Your task to perform on an android device: Add usb-a to usb-b to the cart on bestbuy.com Image 0: 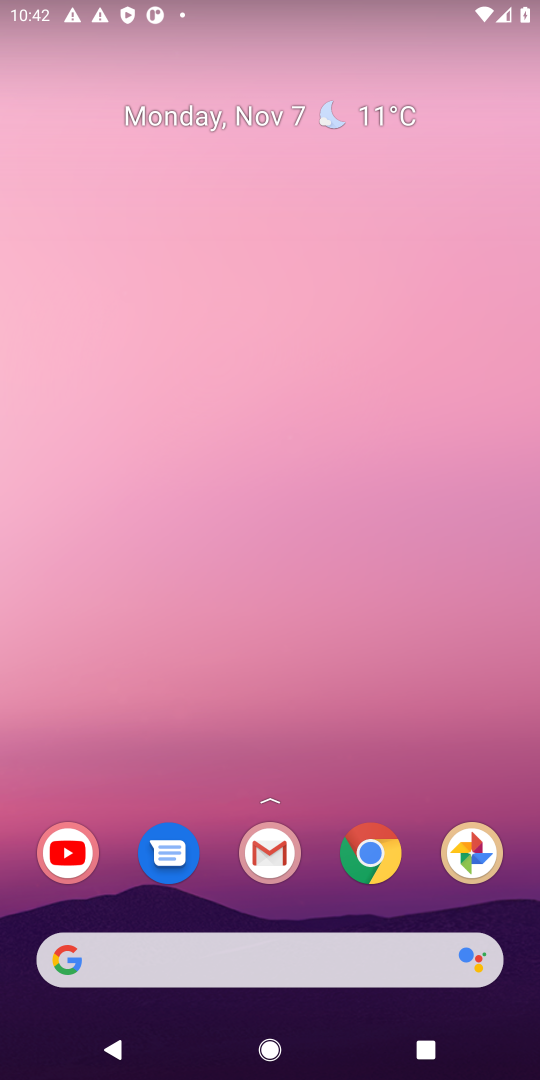
Step 0: click (388, 950)
Your task to perform on an android device: Add usb-a to usb-b to the cart on bestbuy.com Image 1: 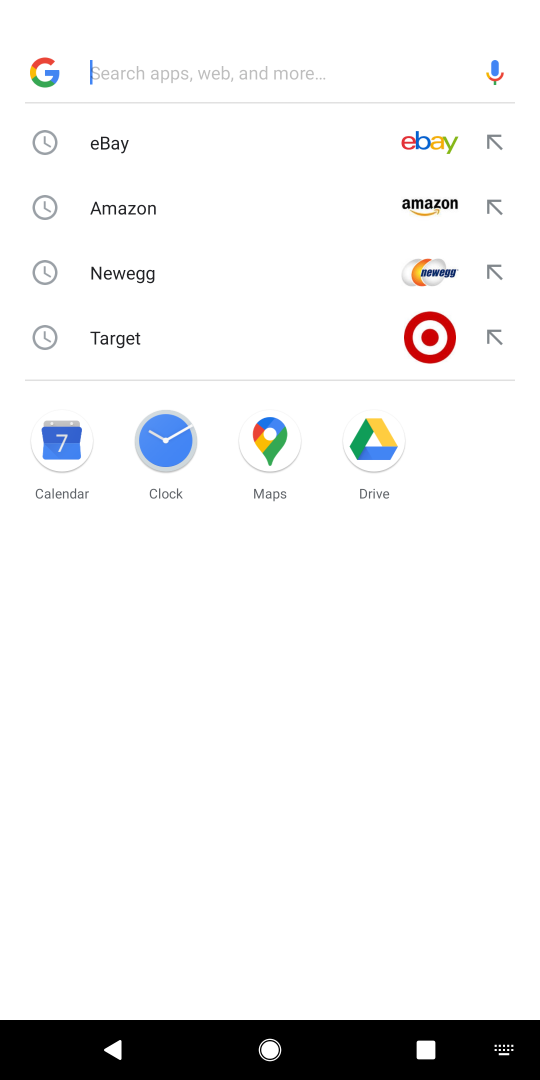
Step 1: type "bestbuy"
Your task to perform on an android device: Add usb-a to usb-b to the cart on bestbuy.com Image 2: 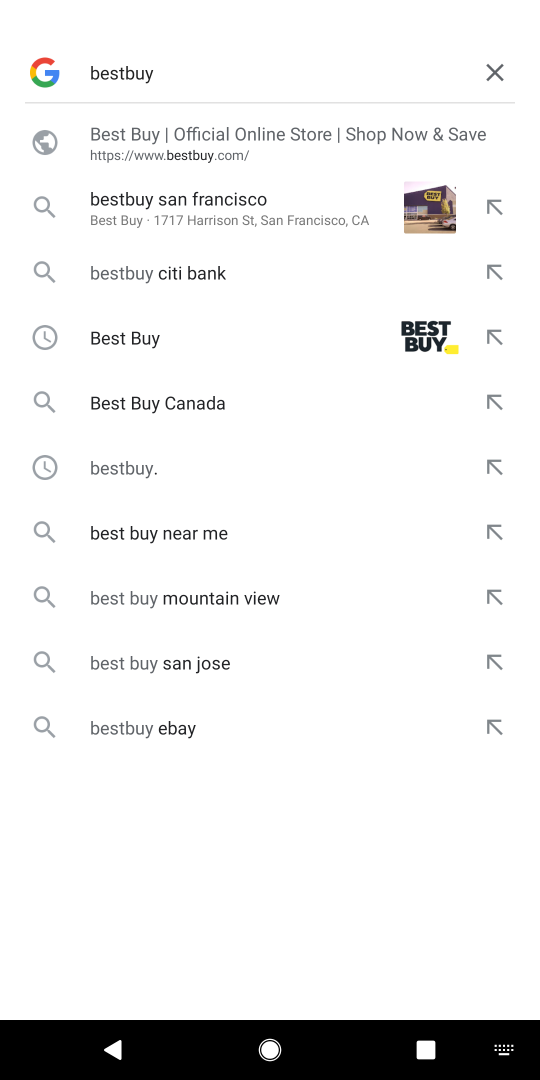
Step 2: task complete